Your task to perform on an android device: empty trash in google photos Image 0: 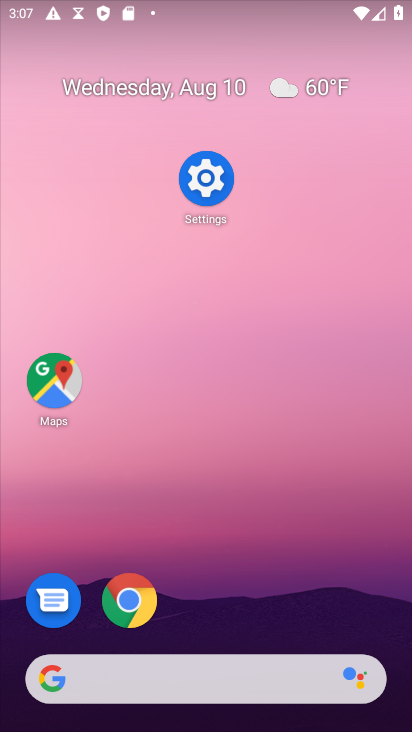
Step 0: press home button
Your task to perform on an android device: empty trash in google photos Image 1: 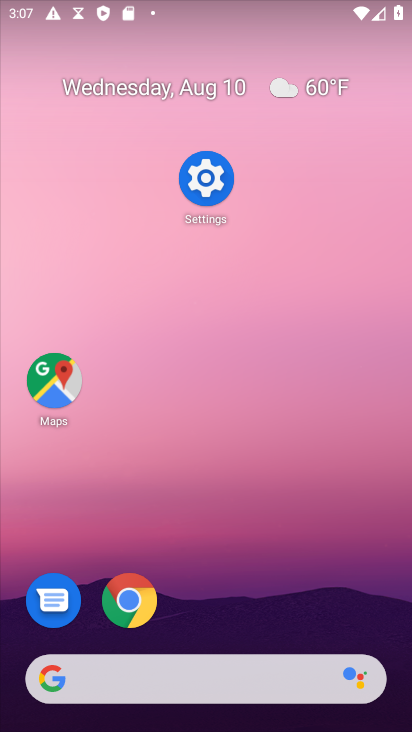
Step 1: drag from (221, 618) to (224, 129)
Your task to perform on an android device: empty trash in google photos Image 2: 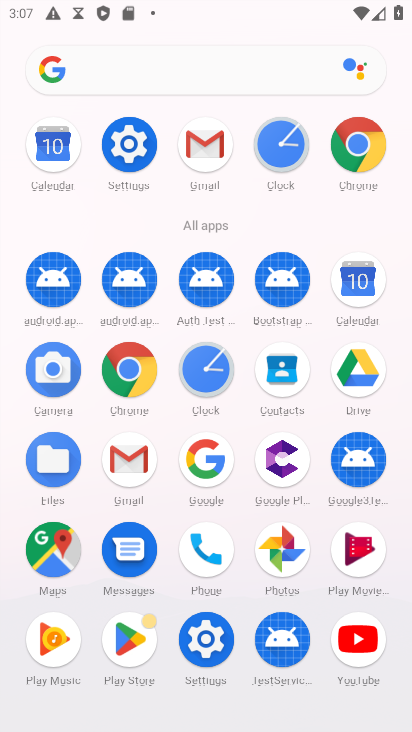
Step 2: click (280, 546)
Your task to perform on an android device: empty trash in google photos Image 3: 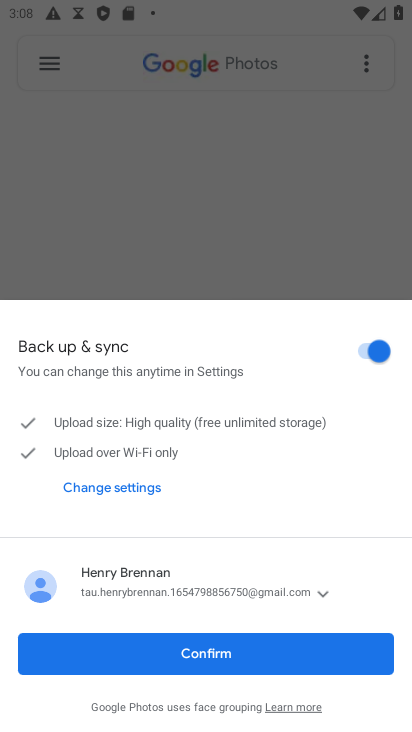
Step 3: click (189, 659)
Your task to perform on an android device: empty trash in google photos Image 4: 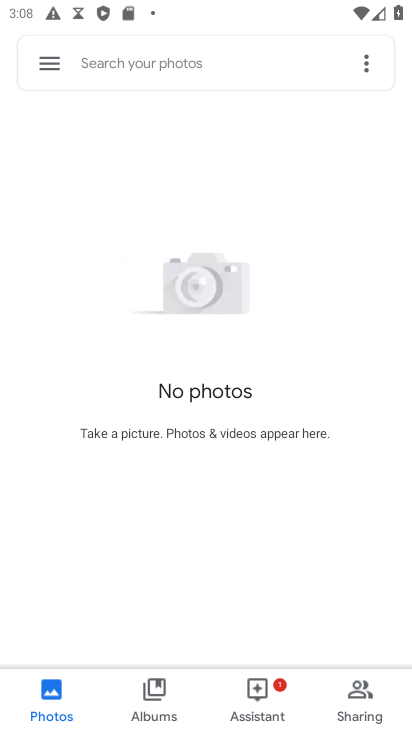
Step 4: click (53, 56)
Your task to perform on an android device: empty trash in google photos Image 5: 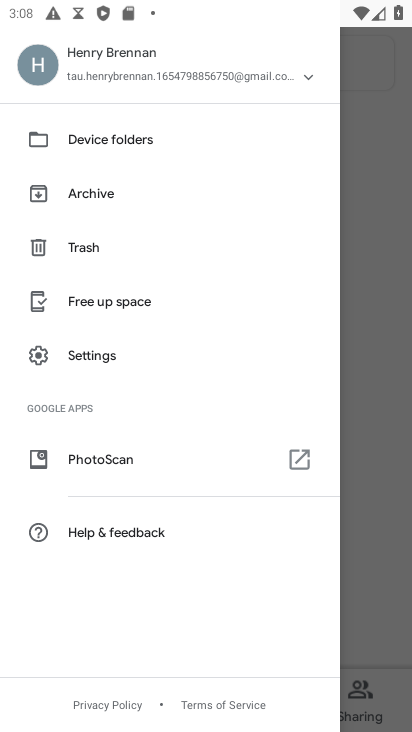
Step 5: click (71, 246)
Your task to perform on an android device: empty trash in google photos Image 6: 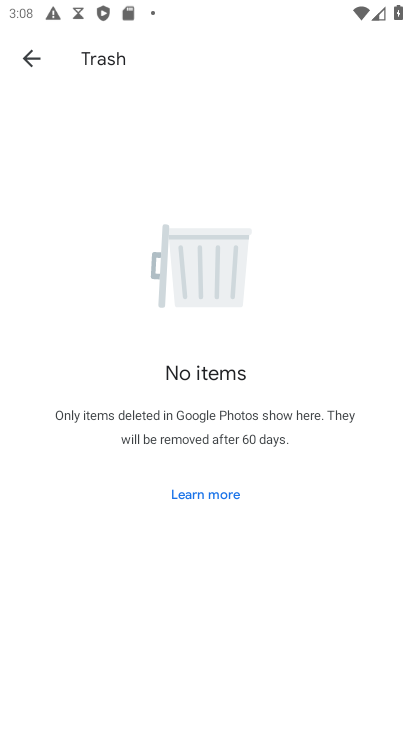
Step 6: task complete